Your task to perform on an android device: Open settings on Google Maps Image 0: 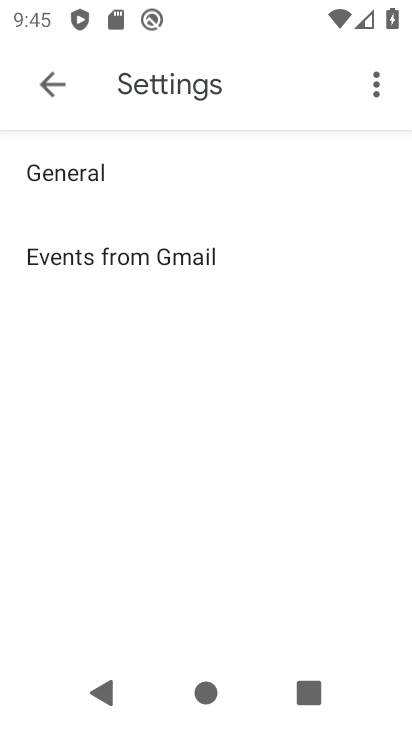
Step 0: press home button
Your task to perform on an android device: Open settings on Google Maps Image 1: 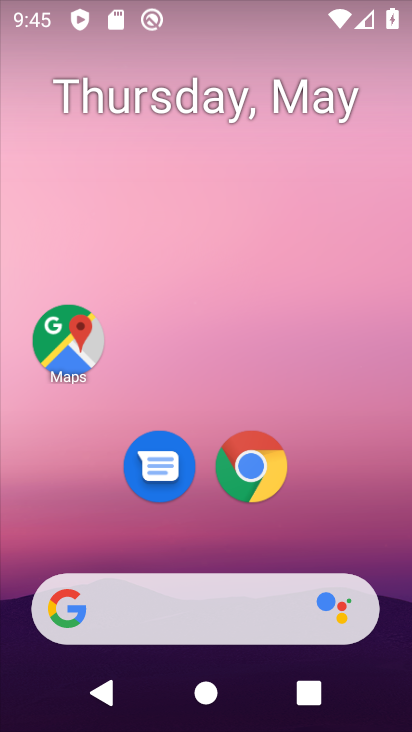
Step 1: click (77, 341)
Your task to perform on an android device: Open settings on Google Maps Image 2: 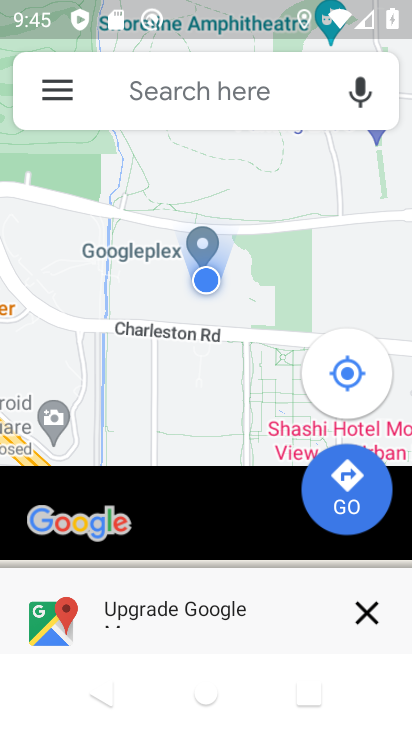
Step 2: click (60, 80)
Your task to perform on an android device: Open settings on Google Maps Image 3: 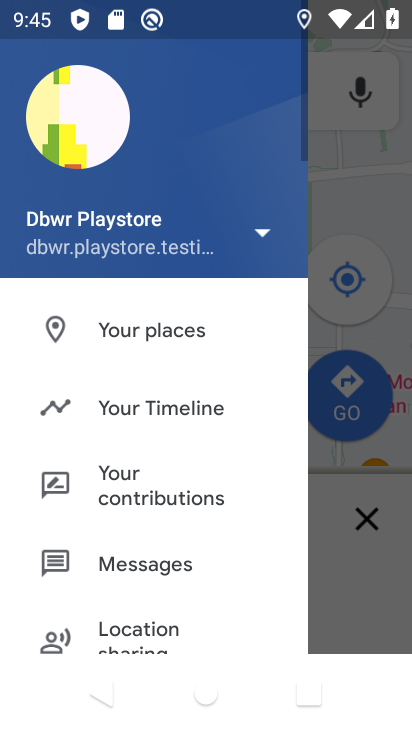
Step 3: drag from (185, 617) to (237, 185)
Your task to perform on an android device: Open settings on Google Maps Image 4: 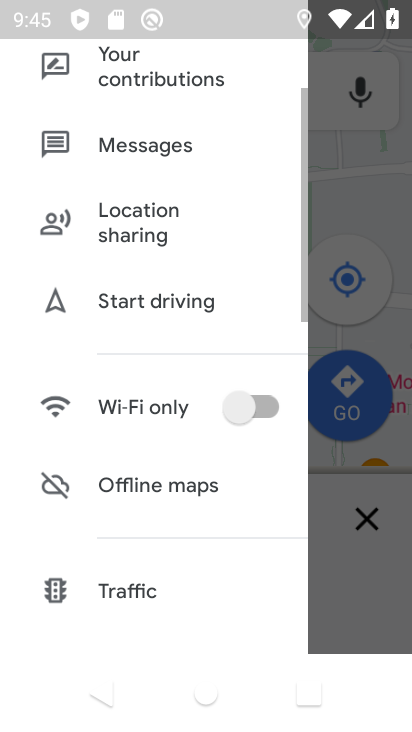
Step 4: drag from (141, 583) to (167, 217)
Your task to perform on an android device: Open settings on Google Maps Image 5: 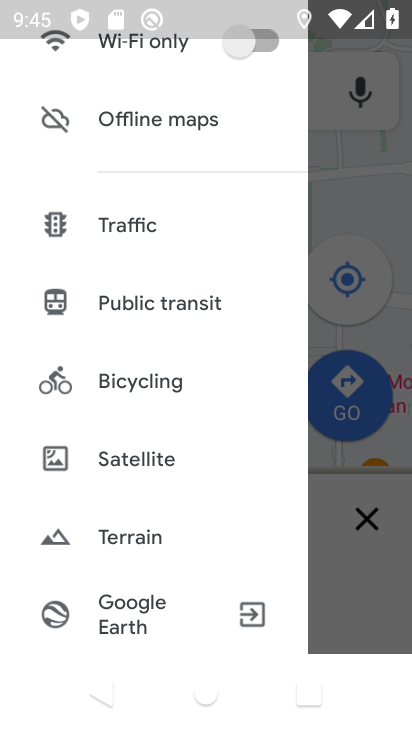
Step 5: drag from (149, 574) to (190, 215)
Your task to perform on an android device: Open settings on Google Maps Image 6: 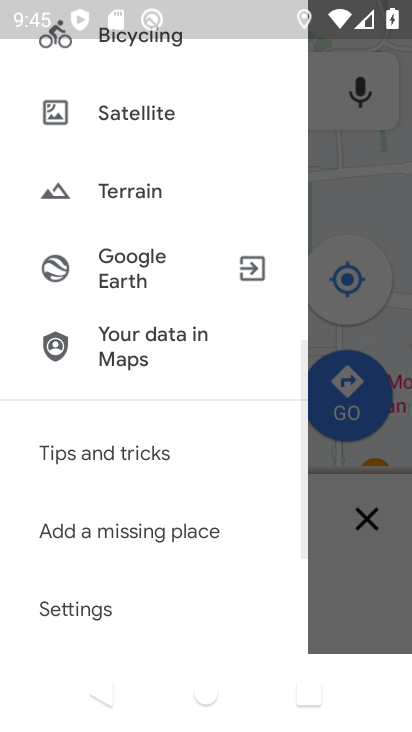
Step 6: drag from (122, 566) to (160, 361)
Your task to perform on an android device: Open settings on Google Maps Image 7: 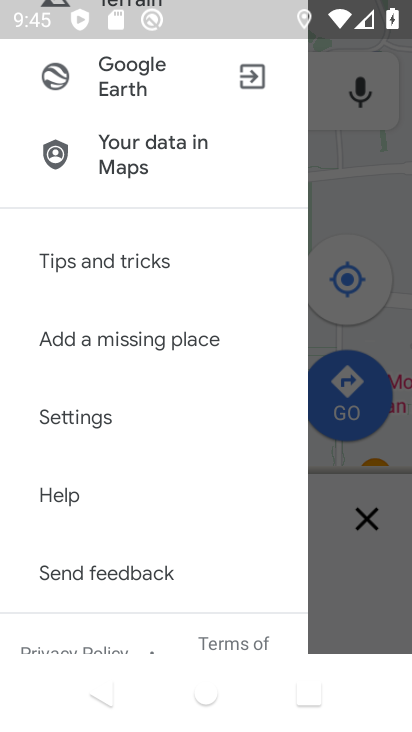
Step 7: click (105, 418)
Your task to perform on an android device: Open settings on Google Maps Image 8: 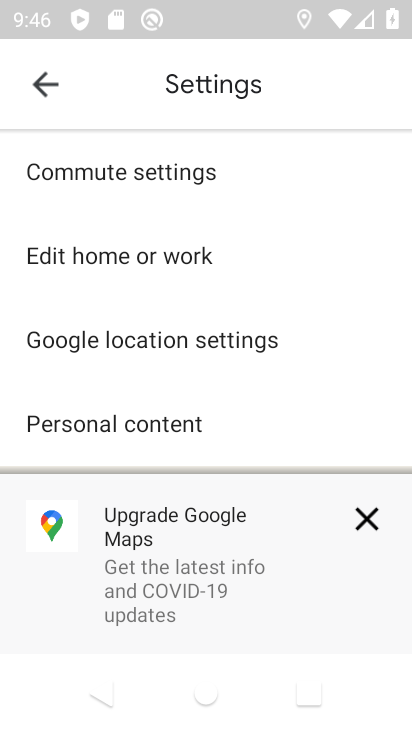
Step 8: task complete